Your task to perform on an android device: Open CNN.com Image 0: 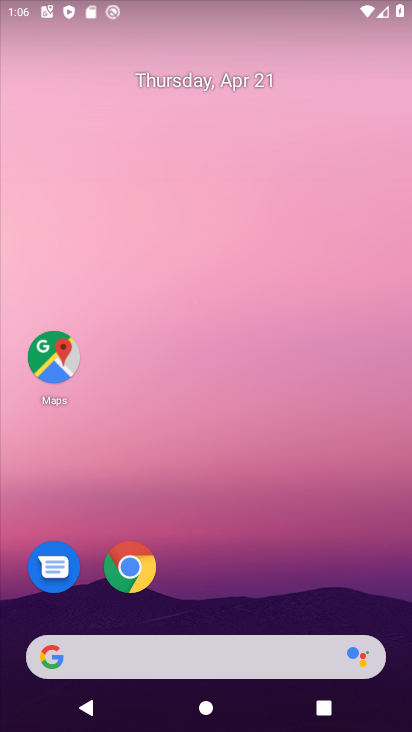
Step 0: click (136, 573)
Your task to perform on an android device: Open CNN.com Image 1: 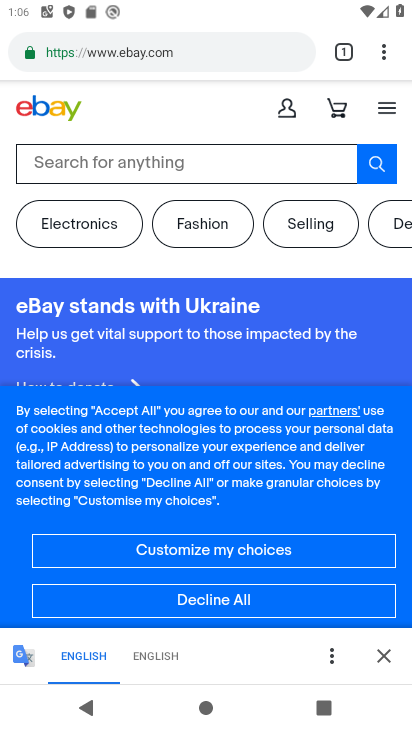
Step 1: click (346, 51)
Your task to perform on an android device: Open CNN.com Image 2: 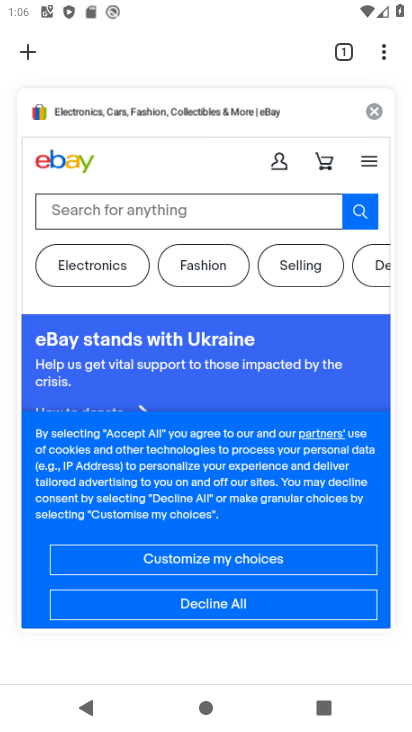
Step 2: click (24, 48)
Your task to perform on an android device: Open CNN.com Image 3: 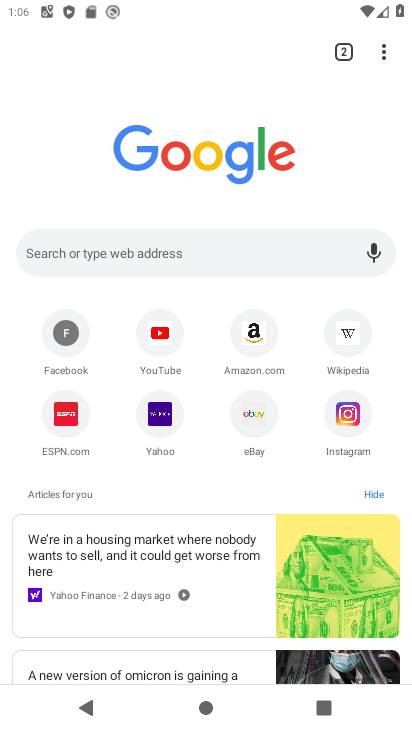
Step 3: click (118, 245)
Your task to perform on an android device: Open CNN.com Image 4: 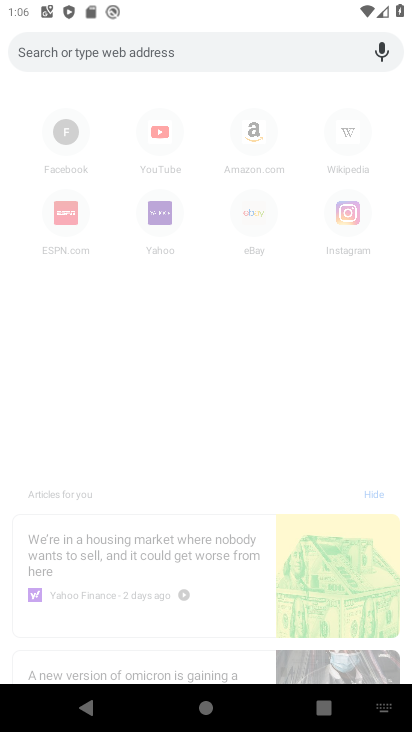
Step 4: click (117, 51)
Your task to perform on an android device: Open CNN.com Image 5: 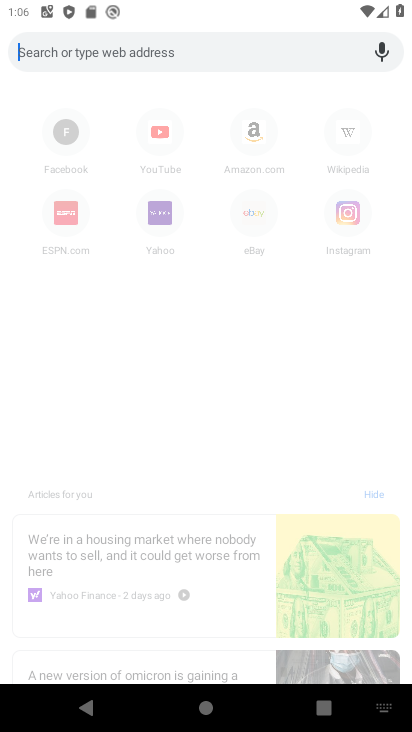
Step 5: type "cnn.com"
Your task to perform on an android device: Open CNN.com Image 6: 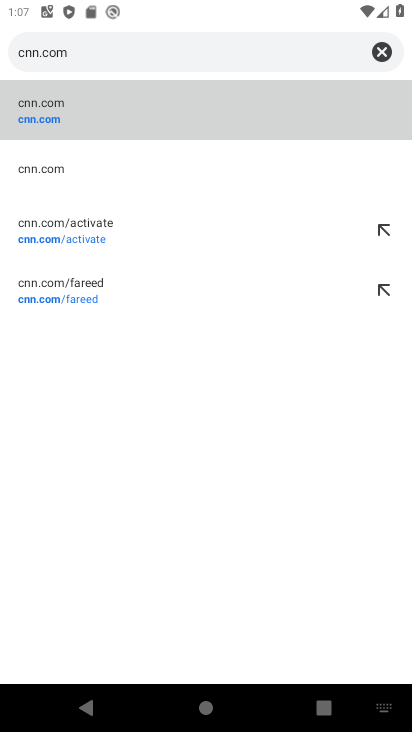
Step 6: click (149, 116)
Your task to perform on an android device: Open CNN.com Image 7: 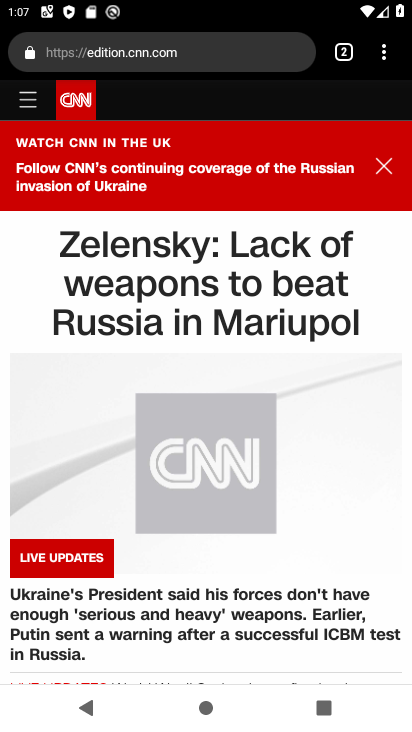
Step 7: task complete